Your task to perform on an android device: Check the settings for the Pandora app Image 0: 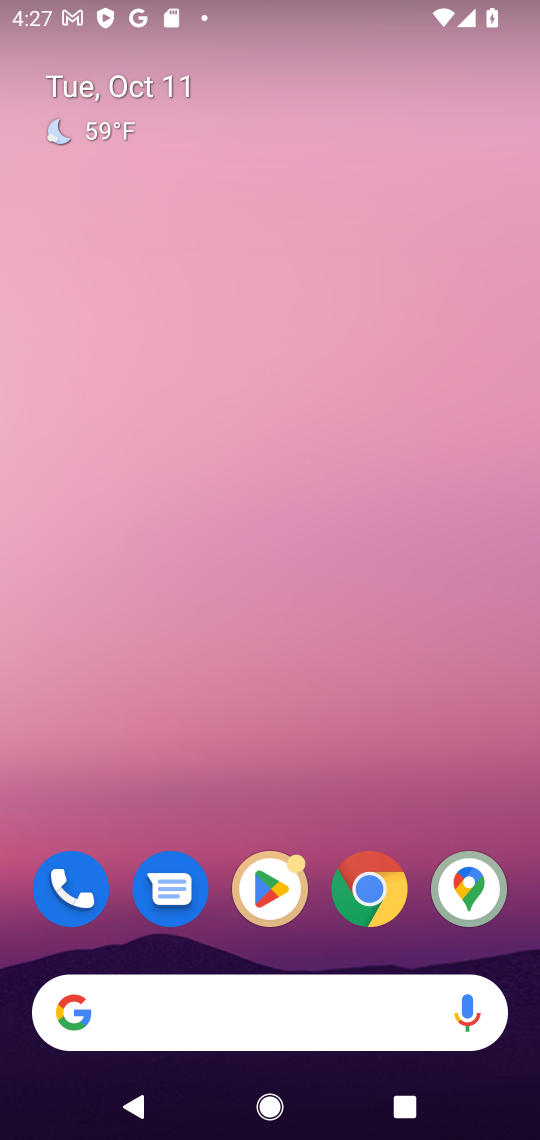
Step 0: drag from (342, 935) to (341, 260)
Your task to perform on an android device: Check the settings for the Pandora app Image 1: 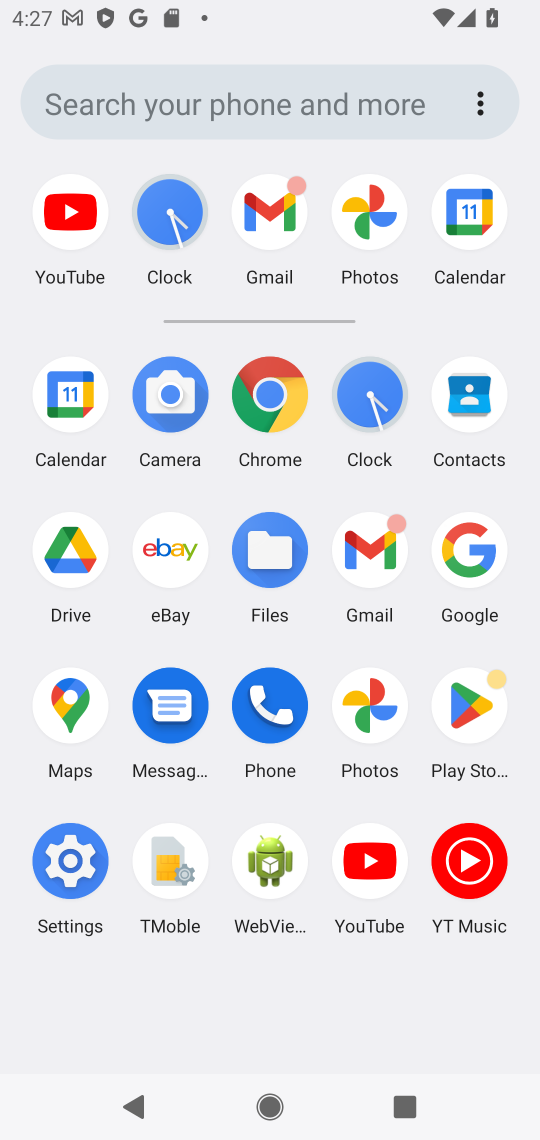
Step 1: click (453, 545)
Your task to perform on an android device: Check the settings for the Pandora app Image 2: 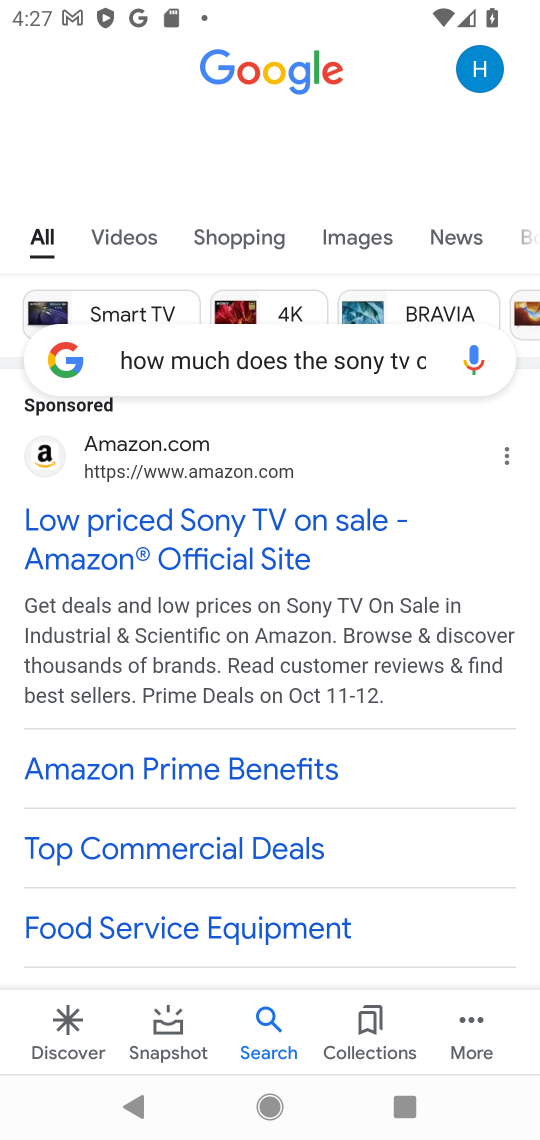
Step 2: press home button
Your task to perform on an android device: Check the settings for the Pandora app Image 3: 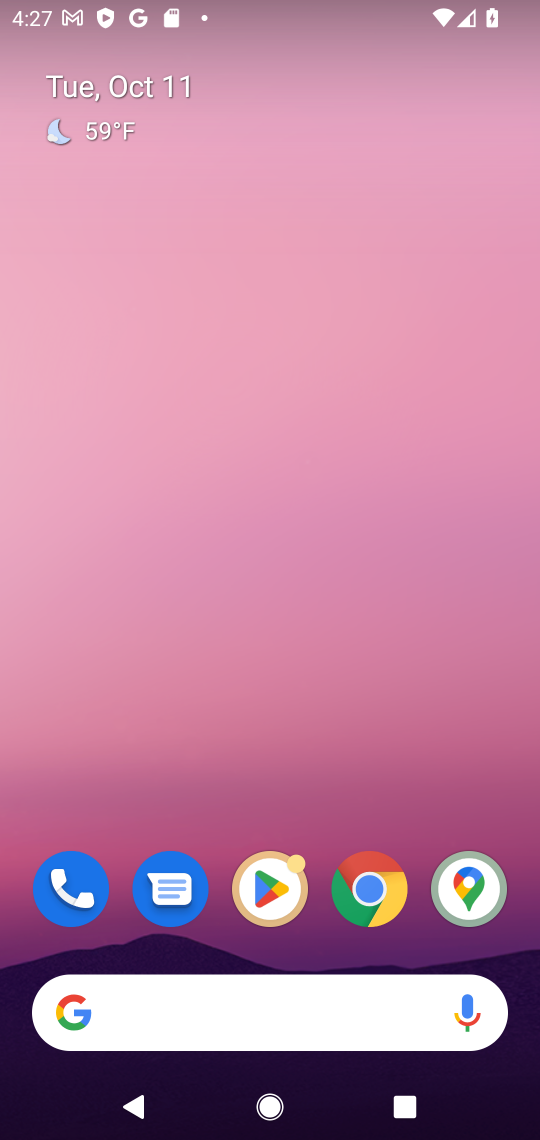
Step 3: drag from (317, 549) to (315, 322)
Your task to perform on an android device: Check the settings for the Pandora app Image 4: 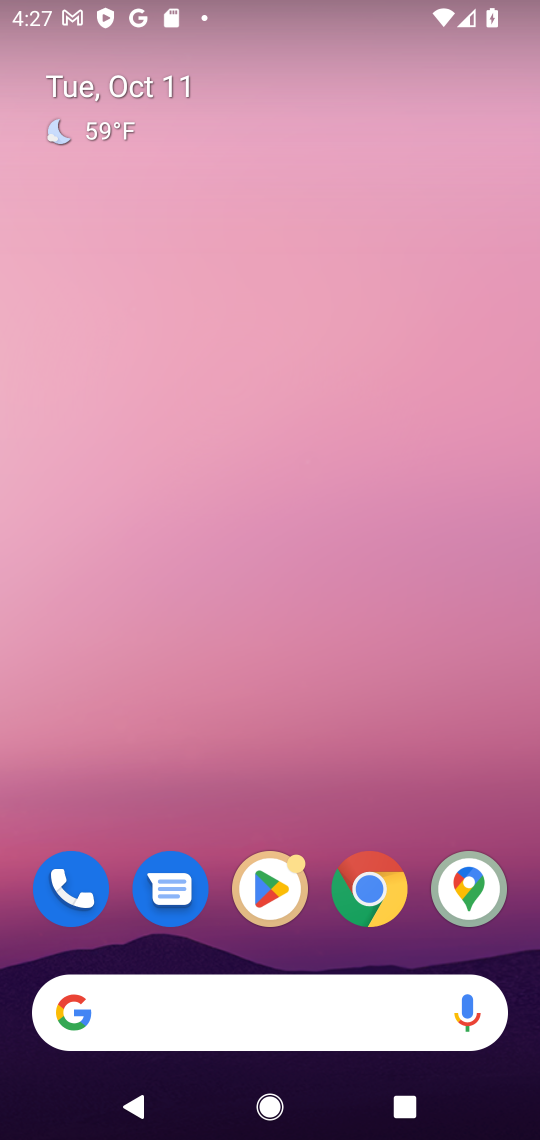
Step 4: drag from (285, 851) to (301, 124)
Your task to perform on an android device: Check the settings for the Pandora app Image 5: 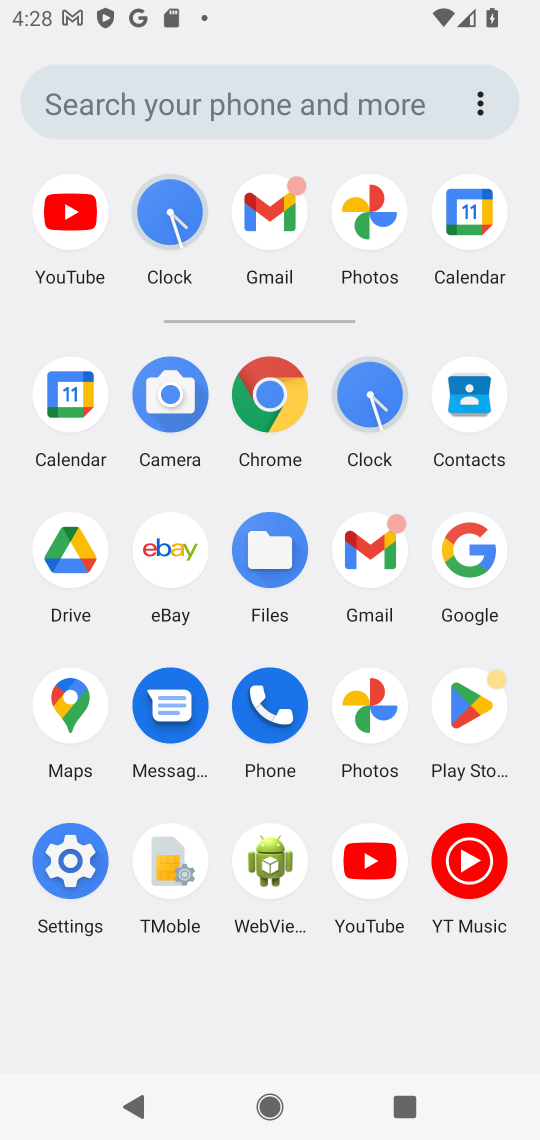
Step 5: click (483, 698)
Your task to perform on an android device: Check the settings for the Pandora app Image 6: 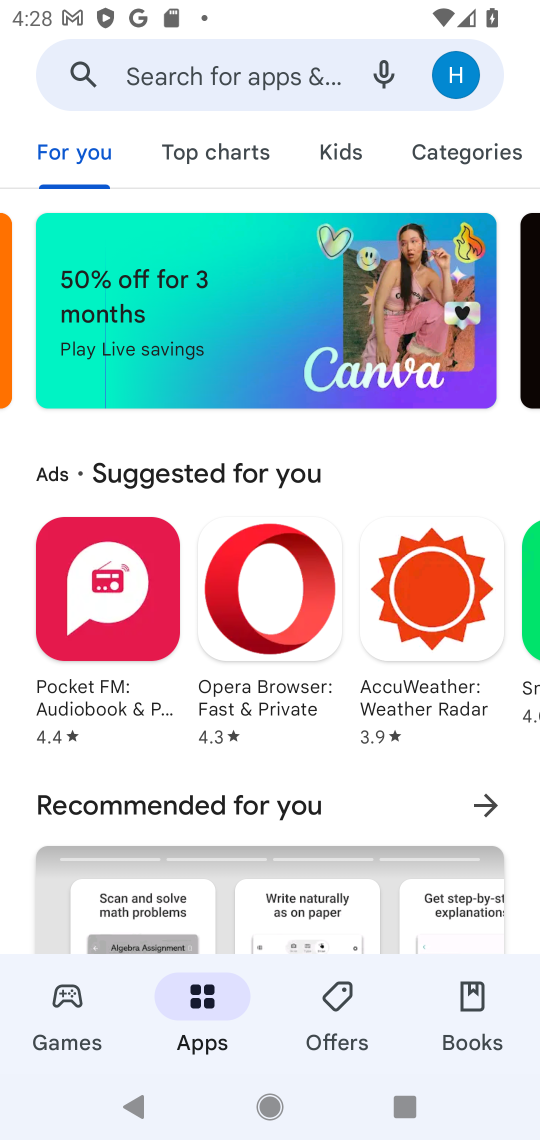
Step 6: click (165, 58)
Your task to perform on an android device: Check the settings for the Pandora app Image 7: 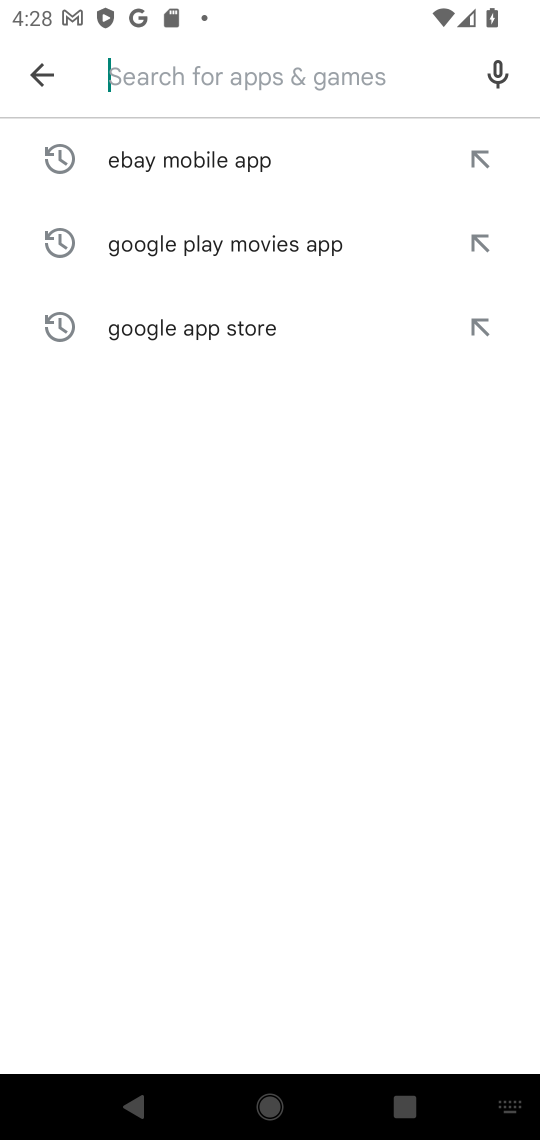
Step 7: type " Pandora app "
Your task to perform on an android device: Check the settings for the Pandora app Image 8: 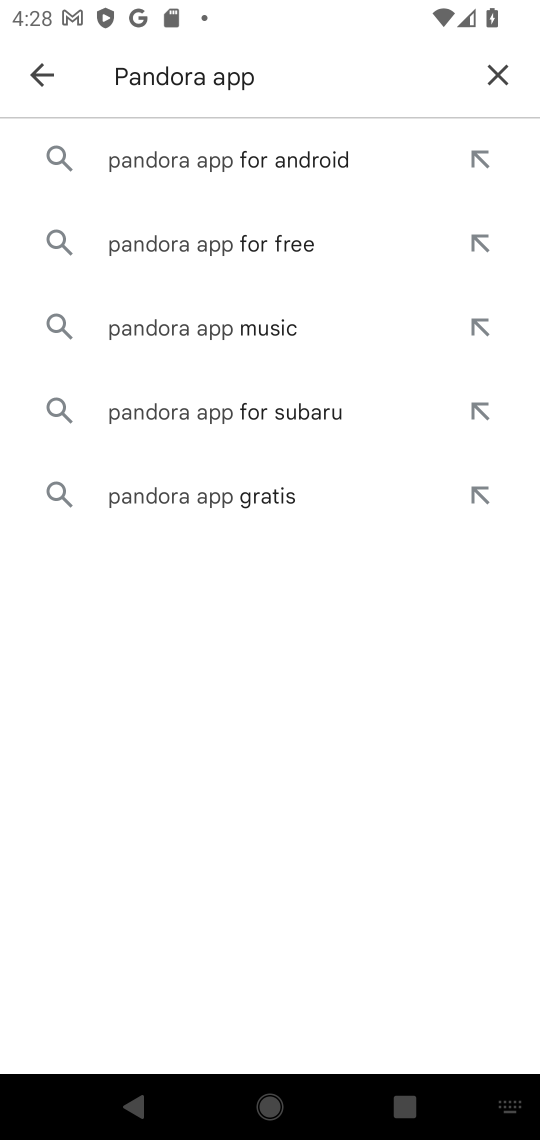
Step 8: click (292, 173)
Your task to perform on an android device: Check the settings for the Pandora app Image 9: 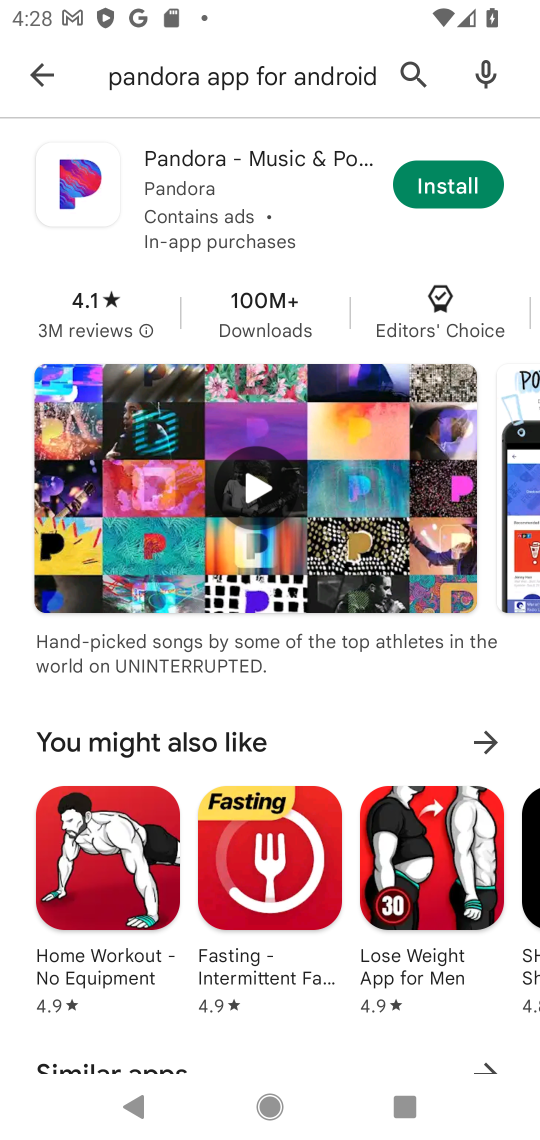
Step 9: click (426, 200)
Your task to perform on an android device: Check the settings for the Pandora app Image 10: 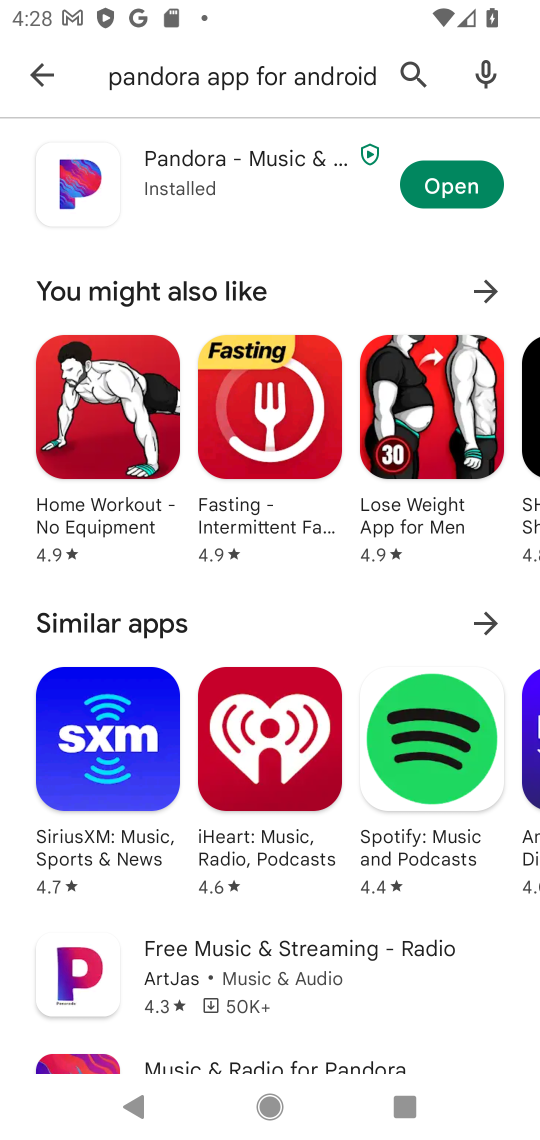
Step 10: click (420, 166)
Your task to perform on an android device: Check the settings for the Pandora app Image 11: 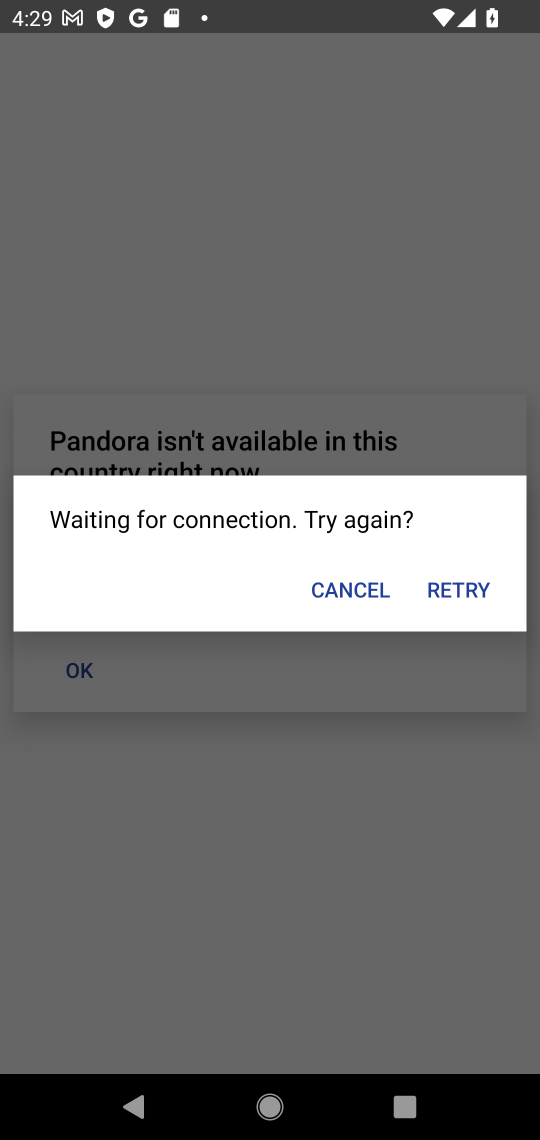
Step 11: click (451, 593)
Your task to perform on an android device: Check the settings for the Pandora app Image 12: 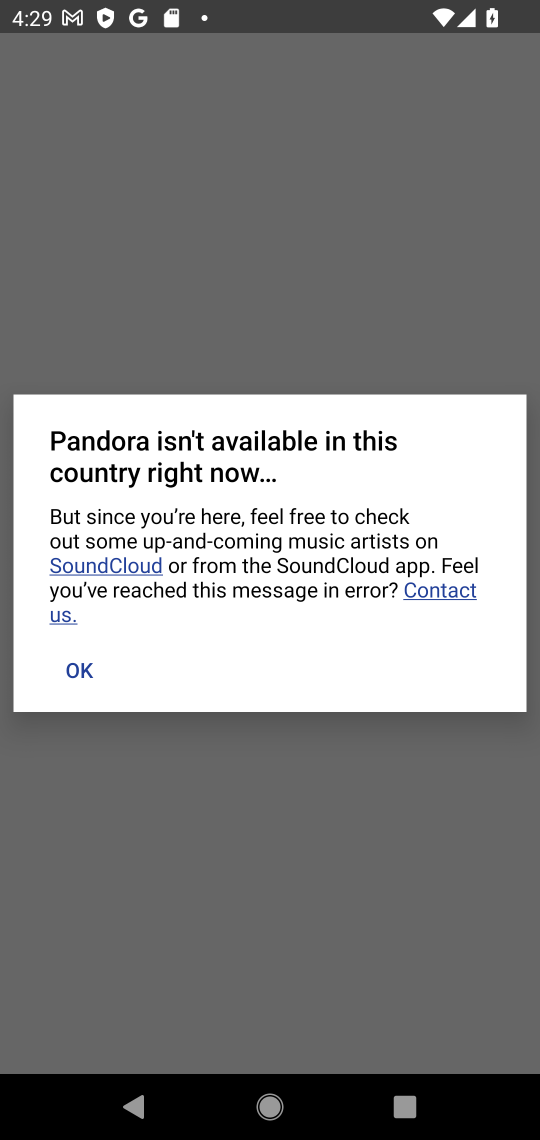
Step 12: click (61, 662)
Your task to perform on an android device: Check the settings for the Pandora app Image 13: 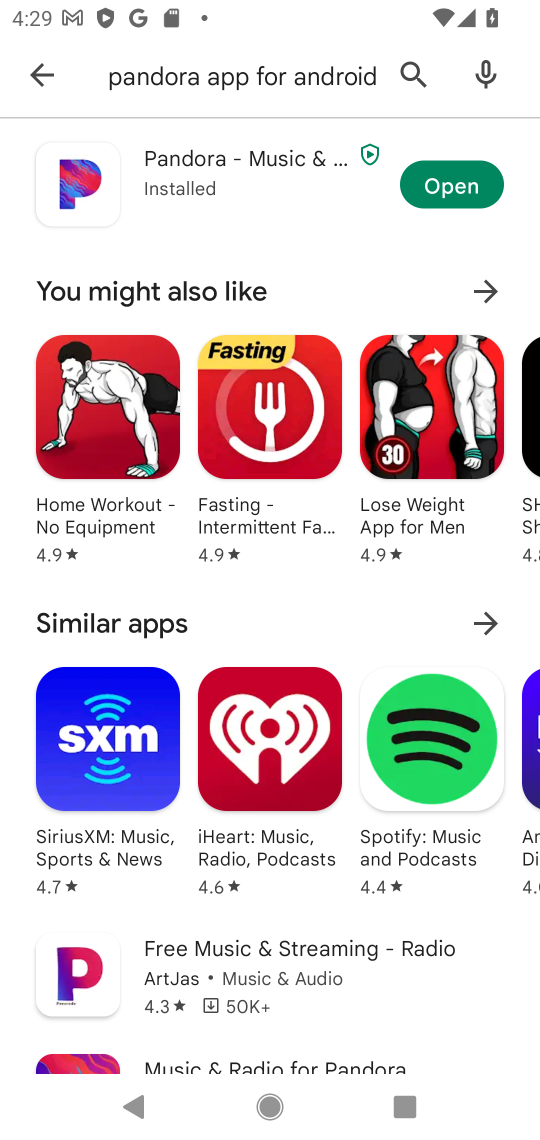
Step 13: click (447, 188)
Your task to perform on an android device: Check the settings for the Pandora app Image 14: 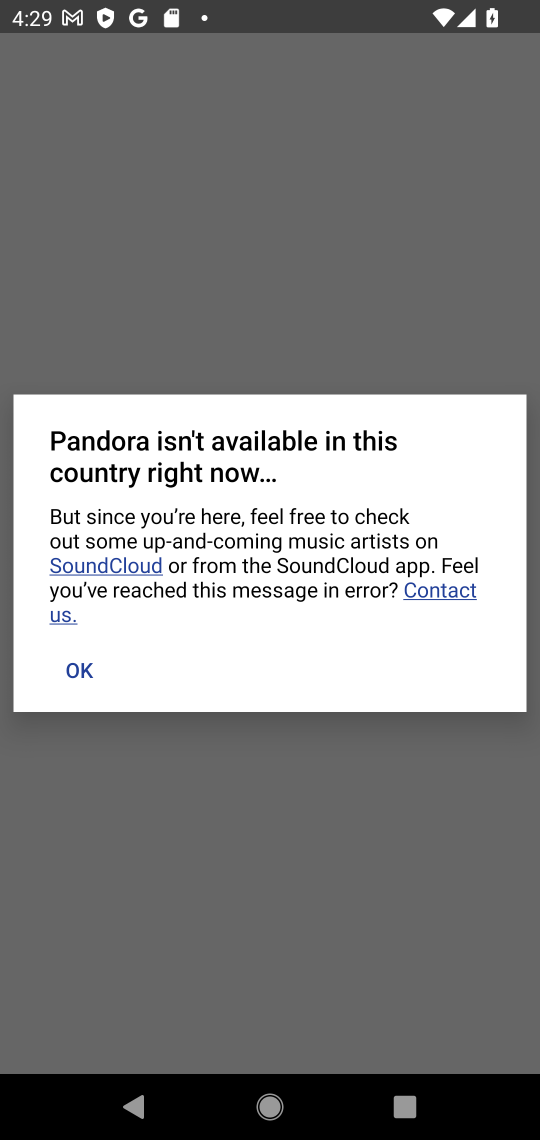
Step 14: click (76, 667)
Your task to perform on an android device: Check the settings for the Pandora app Image 15: 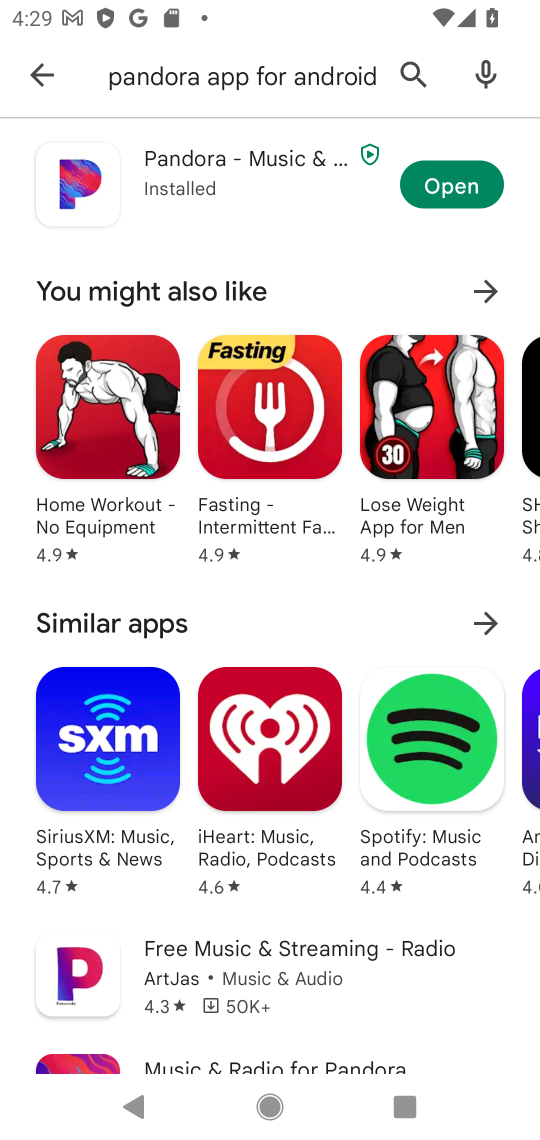
Step 15: task complete